Your task to perform on an android device: Open the calendar and show me this week's events? Image 0: 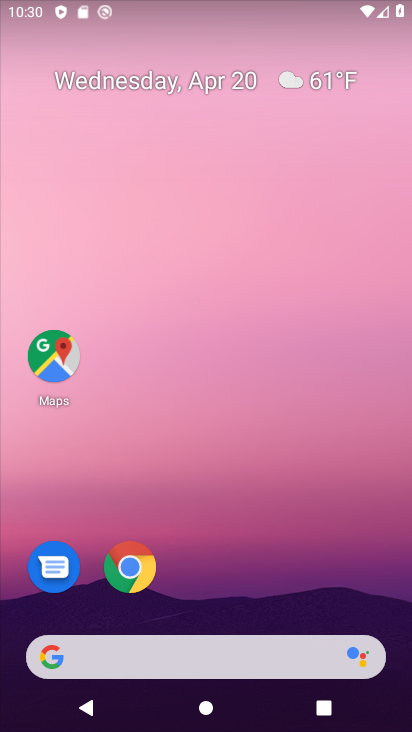
Step 0: drag from (252, 578) to (287, 29)
Your task to perform on an android device: Open the calendar and show me this week's events? Image 1: 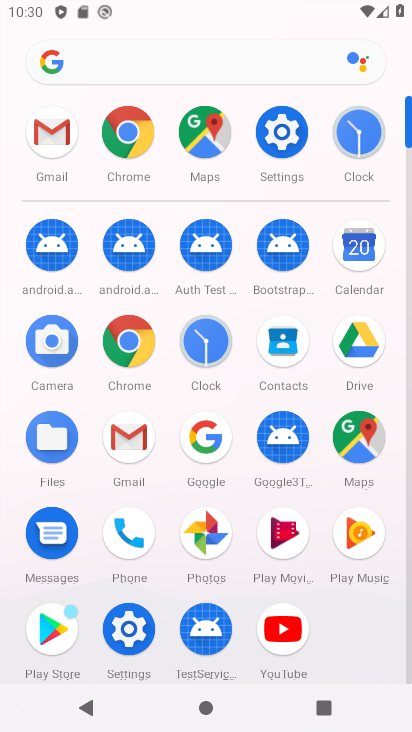
Step 1: click (364, 246)
Your task to perform on an android device: Open the calendar and show me this week's events? Image 2: 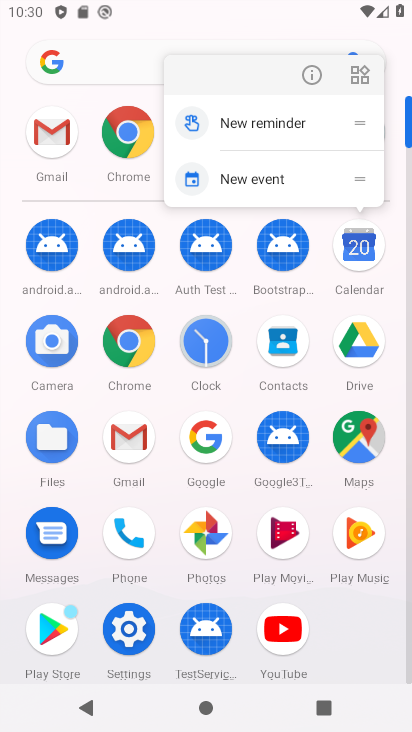
Step 2: click (352, 244)
Your task to perform on an android device: Open the calendar and show me this week's events? Image 3: 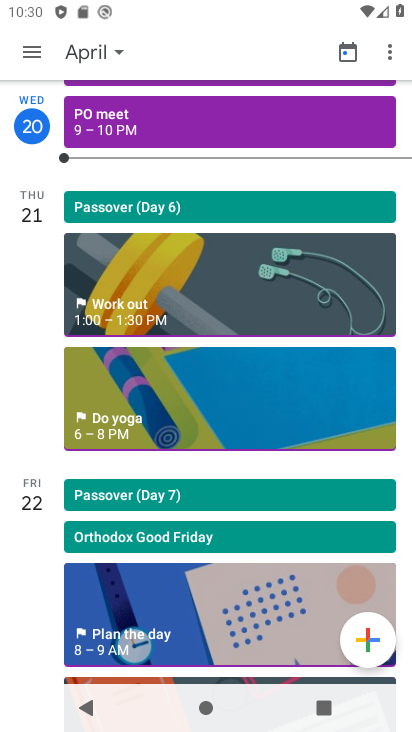
Step 3: task complete